Your task to perform on an android device: toggle airplane mode Image 0: 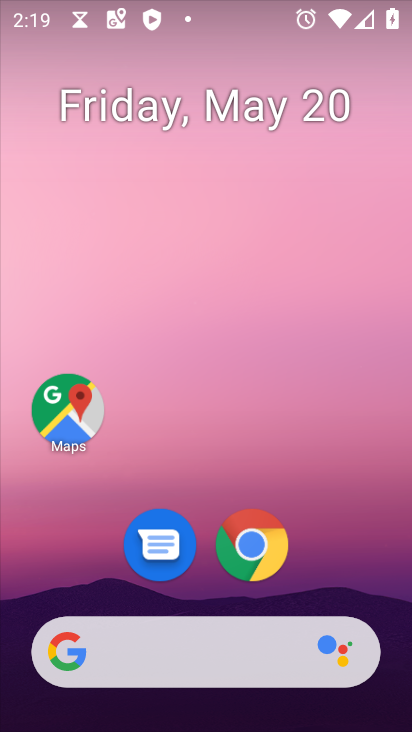
Step 0: drag from (338, 577) to (302, 33)
Your task to perform on an android device: toggle airplane mode Image 1: 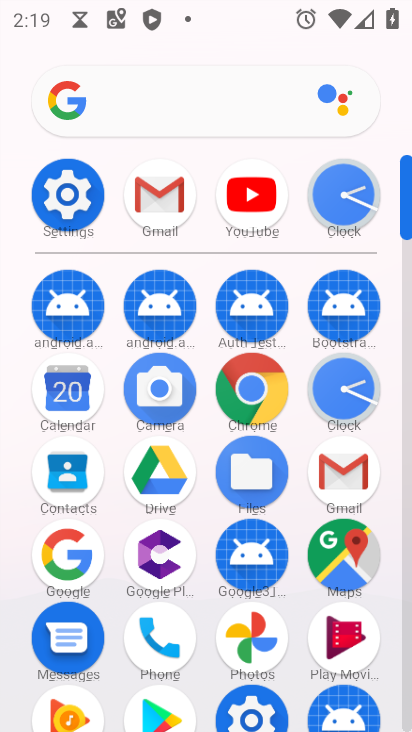
Step 1: click (69, 189)
Your task to perform on an android device: toggle airplane mode Image 2: 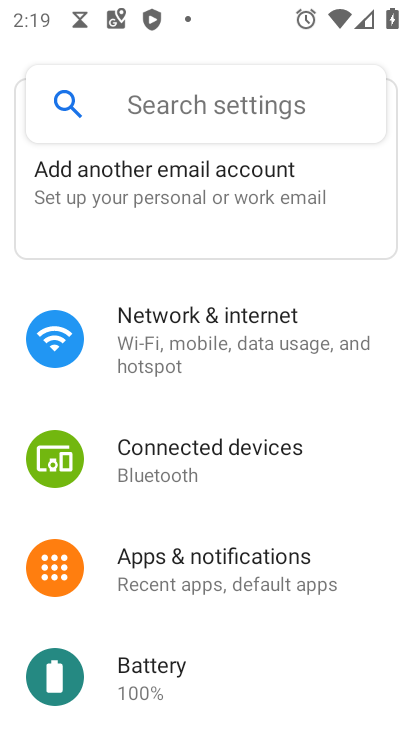
Step 2: click (275, 342)
Your task to perform on an android device: toggle airplane mode Image 3: 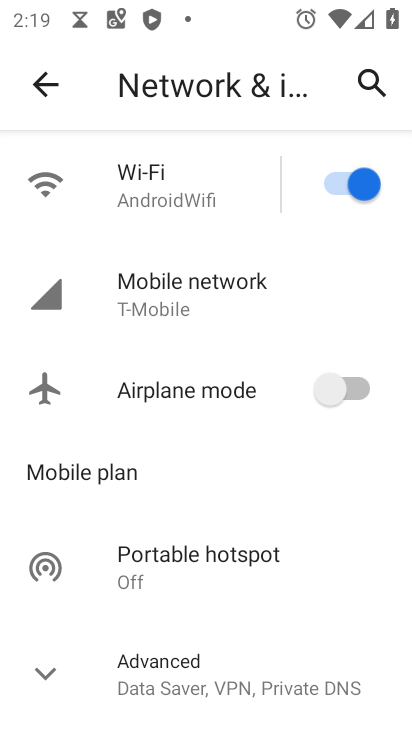
Step 3: click (353, 398)
Your task to perform on an android device: toggle airplane mode Image 4: 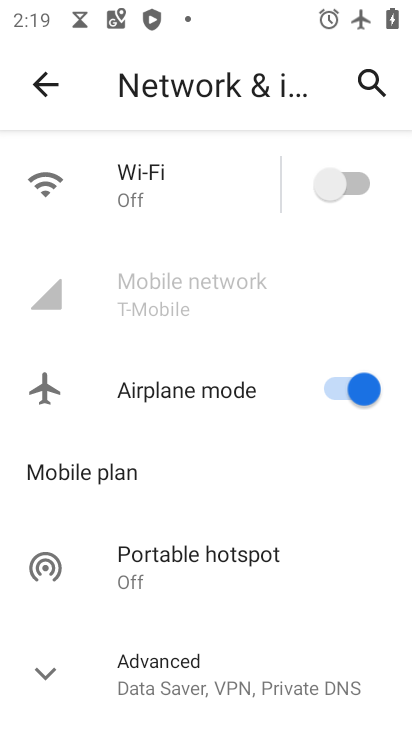
Step 4: task complete